Your task to perform on an android device: change the clock display to digital Image 0: 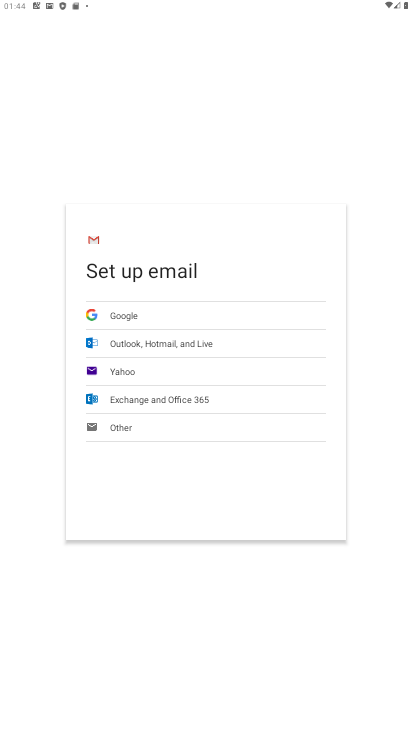
Step 0: press home button
Your task to perform on an android device: change the clock display to digital Image 1: 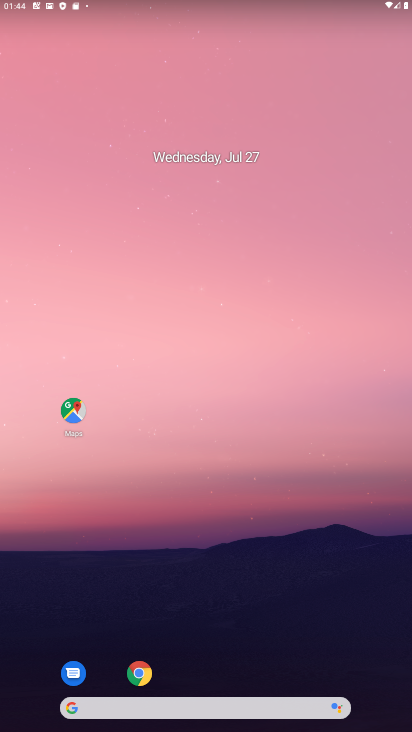
Step 1: drag from (226, 635) to (226, 263)
Your task to perform on an android device: change the clock display to digital Image 2: 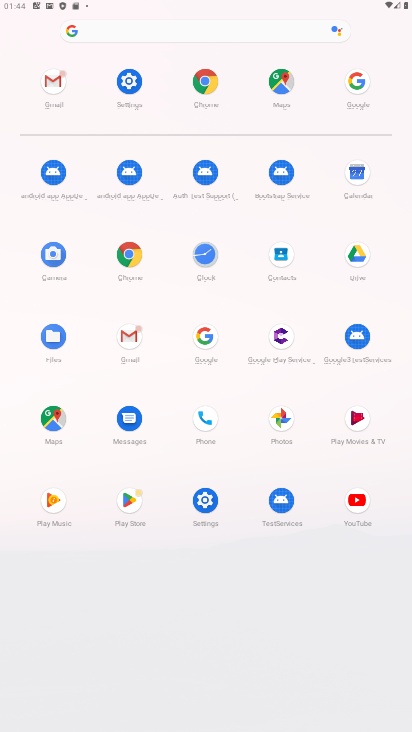
Step 2: click (203, 253)
Your task to perform on an android device: change the clock display to digital Image 3: 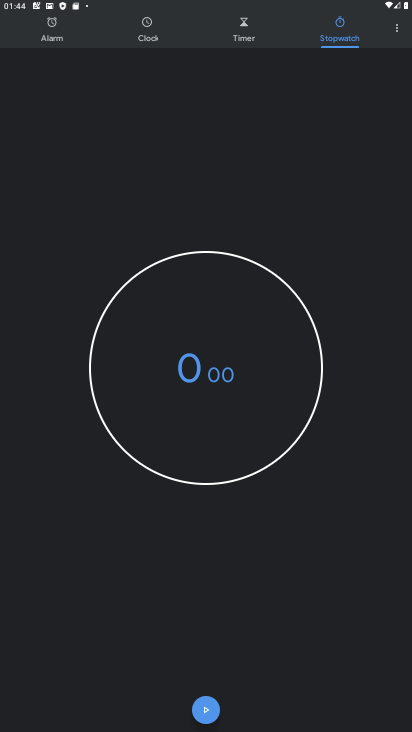
Step 3: click (394, 32)
Your task to perform on an android device: change the clock display to digital Image 4: 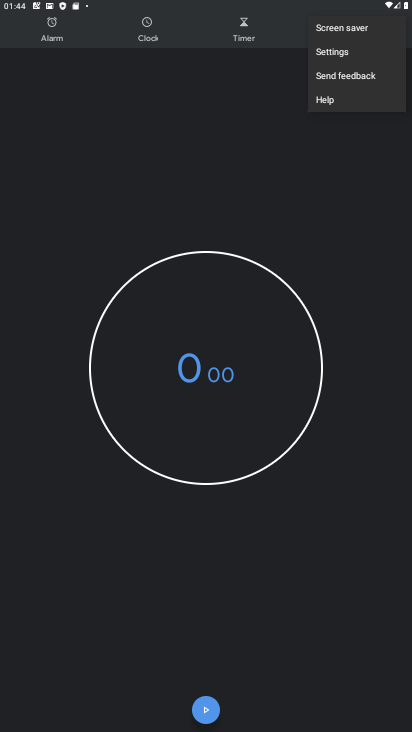
Step 4: click (338, 48)
Your task to perform on an android device: change the clock display to digital Image 5: 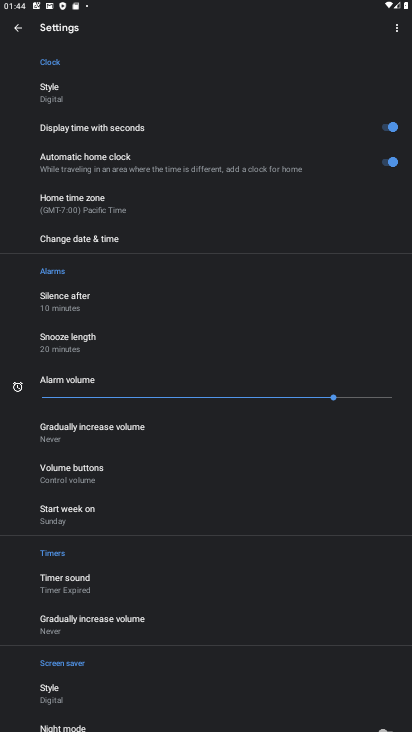
Step 5: click (62, 100)
Your task to perform on an android device: change the clock display to digital Image 6: 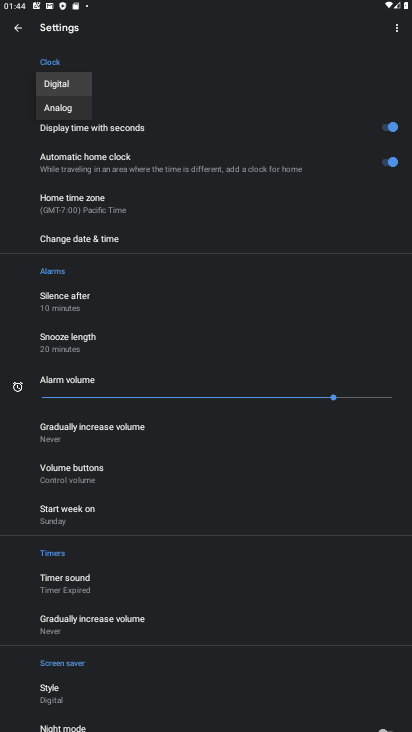
Step 6: click (66, 82)
Your task to perform on an android device: change the clock display to digital Image 7: 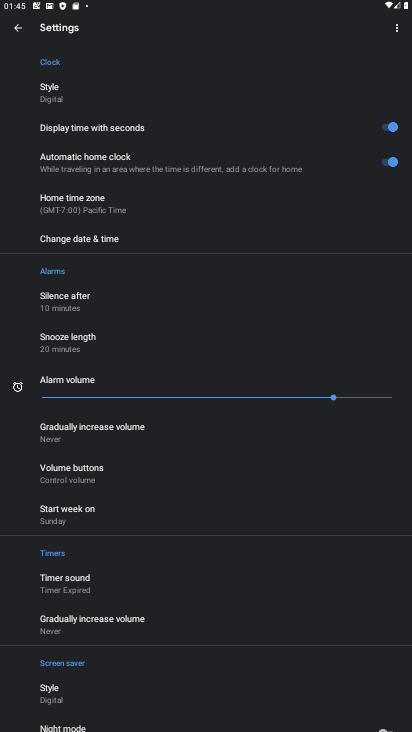
Step 7: task complete